Your task to perform on an android device: Open calendar and show me the first week of next month Image 0: 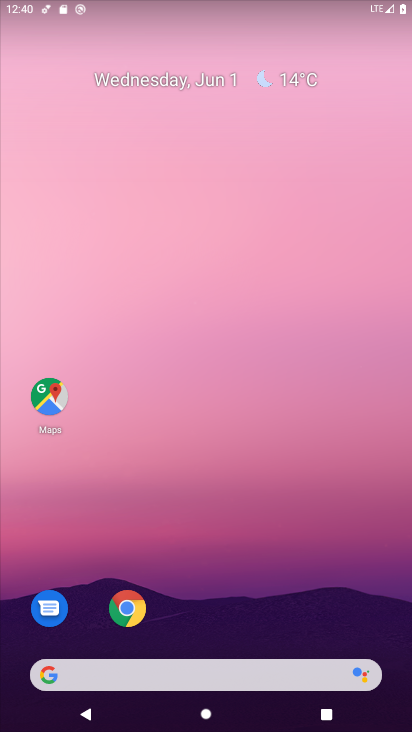
Step 0: drag from (205, 624) to (296, 143)
Your task to perform on an android device: Open calendar and show me the first week of next month Image 1: 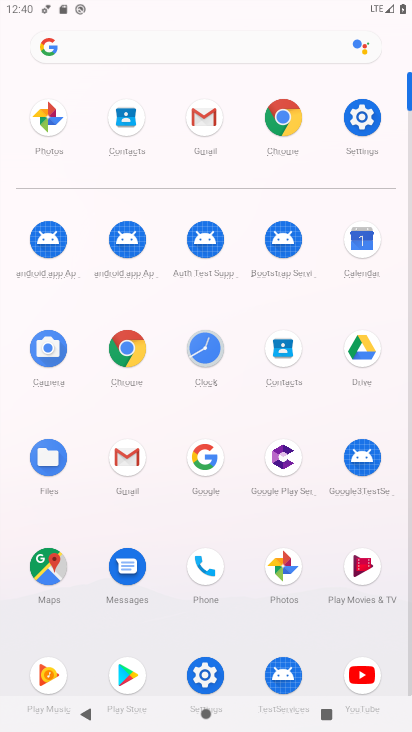
Step 1: click (369, 234)
Your task to perform on an android device: Open calendar and show me the first week of next month Image 2: 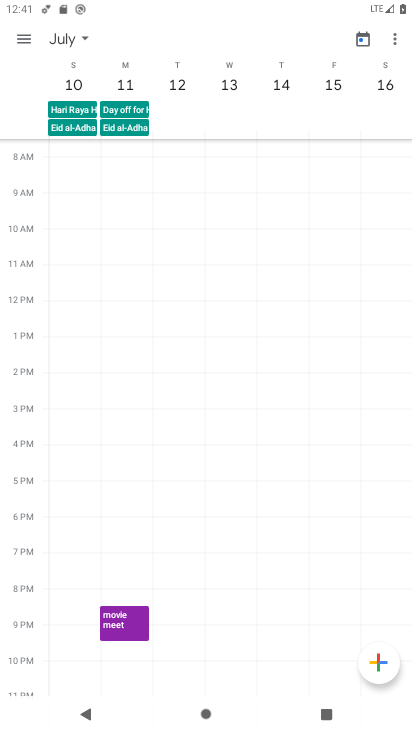
Step 2: task complete